Your task to perform on an android device: toggle notifications settings in the gmail app Image 0: 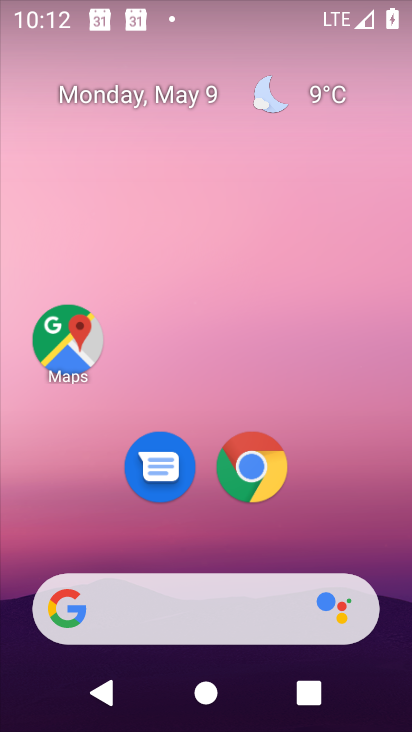
Step 0: drag from (356, 546) to (314, 32)
Your task to perform on an android device: toggle notifications settings in the gmail app Image 1: 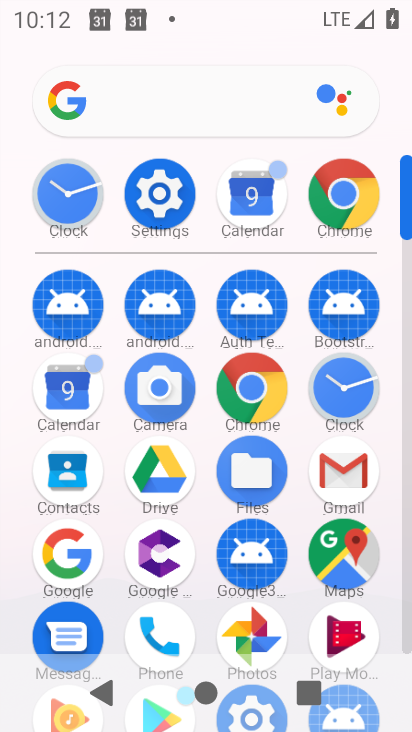
Step 1: click (347, 481)
Your task to perform on an android device: toggle notifications settings in the gmail app Image 2: 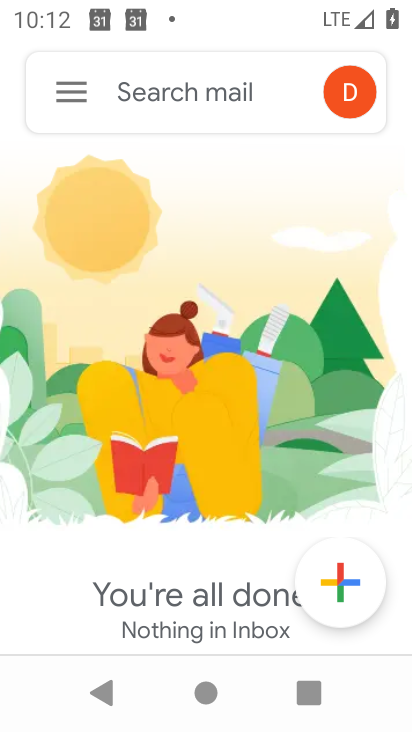
Step 2: click (76, 93)
Your task to perform on an android device: toggle notifications settings in the gmail app Image 3: 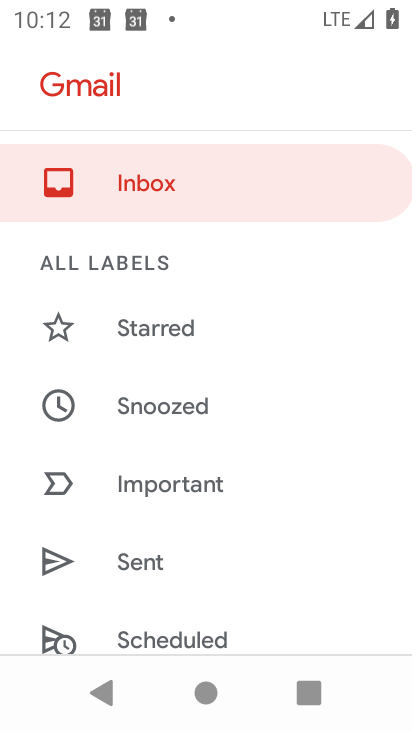
Step 3: drag from (283, 590) to (274, 204)
Your task to perform on an android device: toggle notifications settings in the gmail app Image 4: 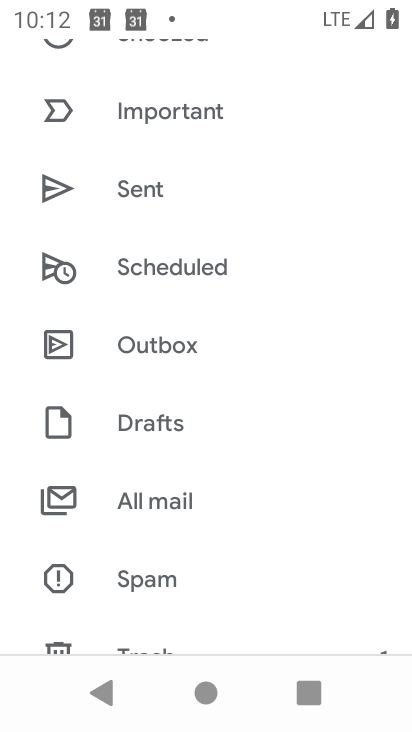
Step 4: drag from (241, 546) to (232, 111)
Your task to perform on an android device: toggle notifications settings in the gmail app Image 5: 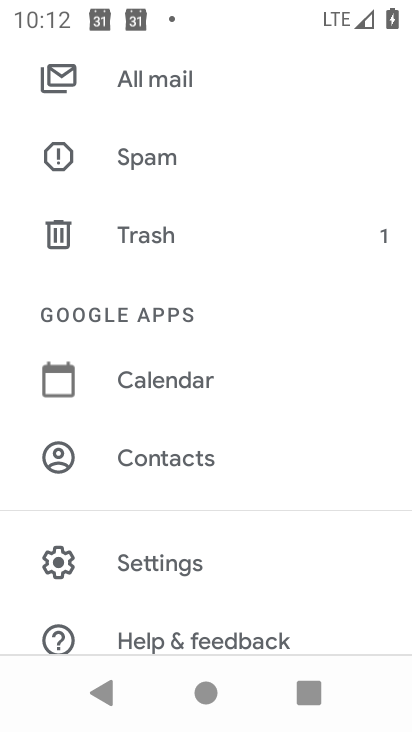
Step 5: drag from (252, 531) to (255, 198)
Your task to perform on an android device: toggle notifications settings in the gmail app Image 6: 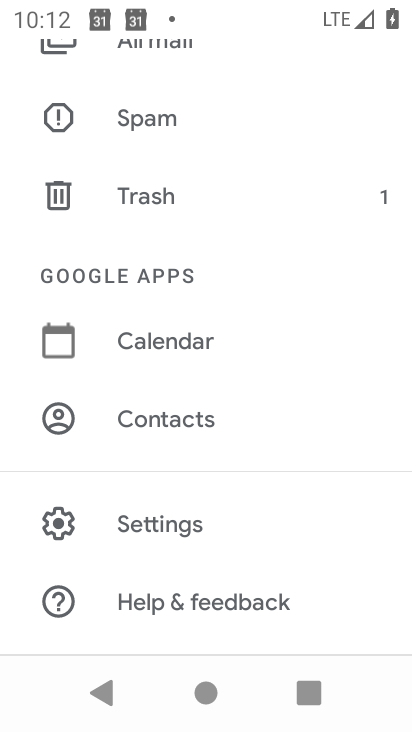
Step 6: click (166, 538)
Your task to perform on an android device: toggle notifications settings in the gmail app Image 7: 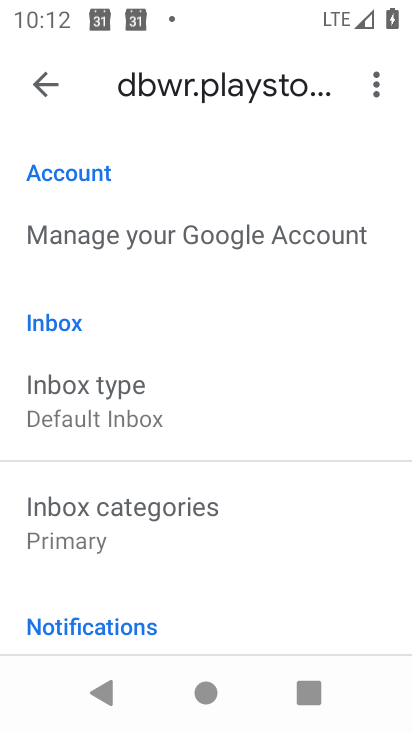
Step 7: click (37, 88)
Your task to perform on an android device: toggle notifications settings in the gmail app Image 8: 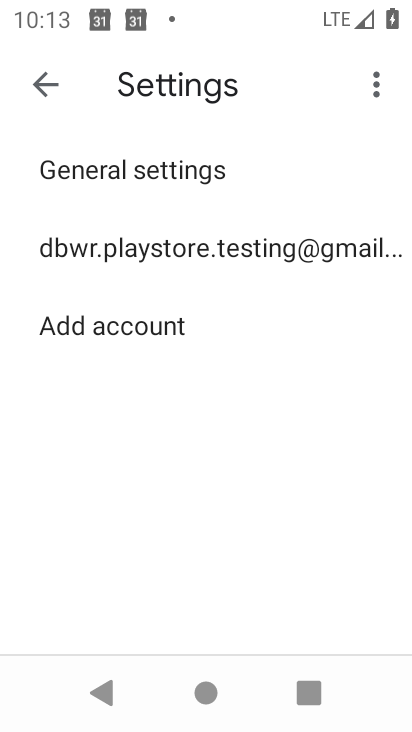
Step 8: click (93, 176)
Your task to perform on an android device: toggle notifications settings in the gmail app Image 9: 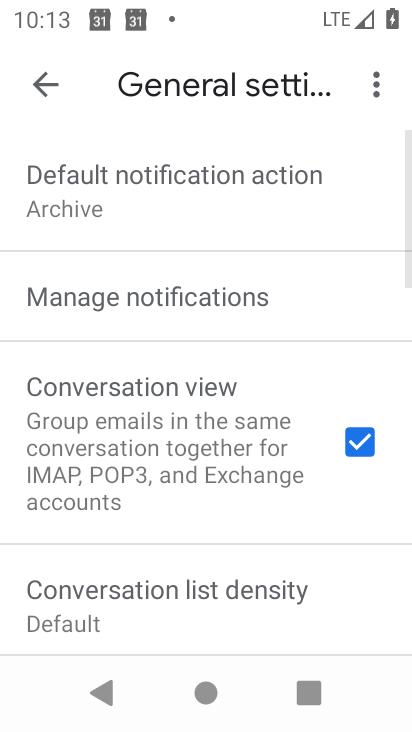
Step 9: click (160, 308)
Your task to perform on an android device: toggle notifications settings in the gmail app Image 10: 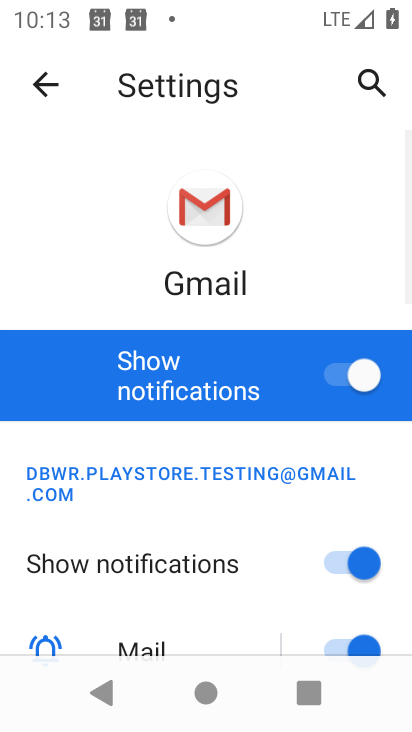
Step 10: click (377, 383)
Your task to perform on an android device: toggle notifications settings in the gmail app Image 11: 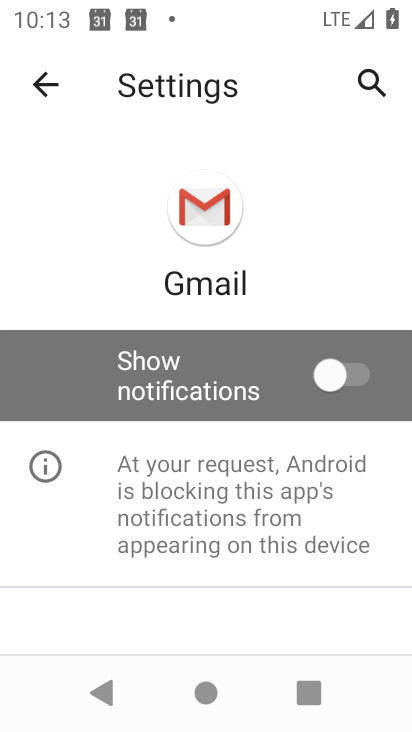
Step 11: task complete